Your task to perform on an android device: find snoozed emails in the gmail app Image 0: 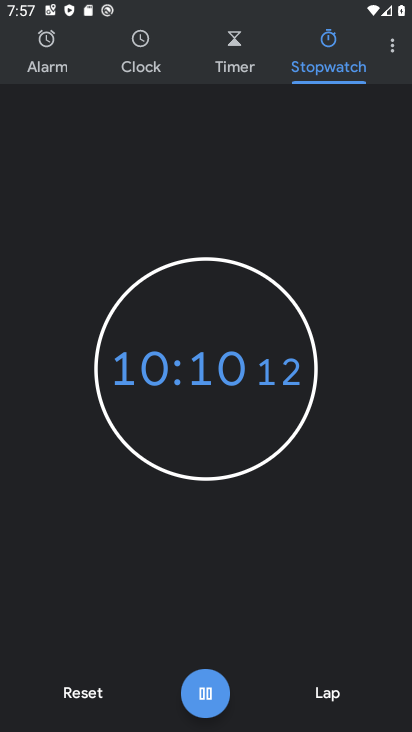
Step 0: press home button
Your task to perform on an android device: find snoozed emails in the gmail app Image 1: 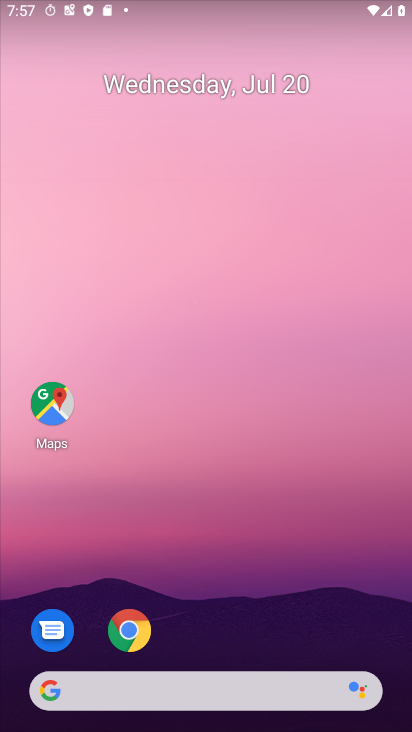
Step 1: drag from (201, 581) to (200, 206)
Your task to perform on an android device: find snoozed emails in the gmail app Image 2: 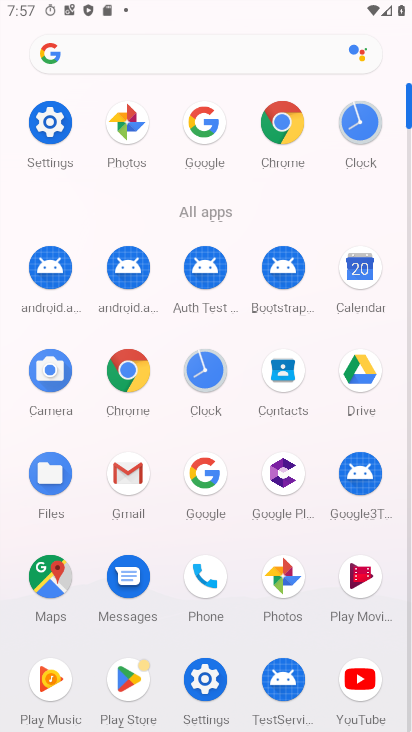
Step 2: click (135, 486)
Your task to perform on an android device: find snoozed emails in the gmail app Image 3: 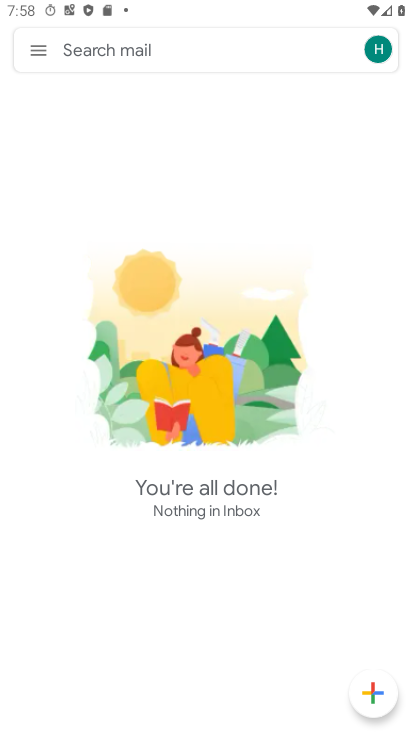
Step 3: click (33, 49)
Your task to perform on an android device: find snoozed emails in the gmail app Image 4: 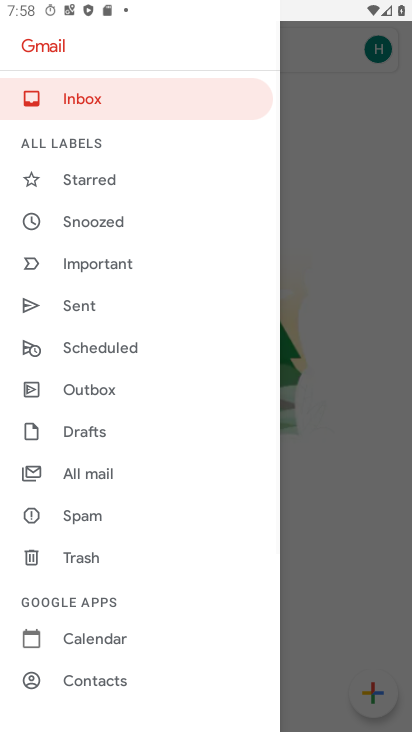
Step 4: click (99, 219)
Your task to perform on an android device: find snoozed emails in the gmail app Image 5: 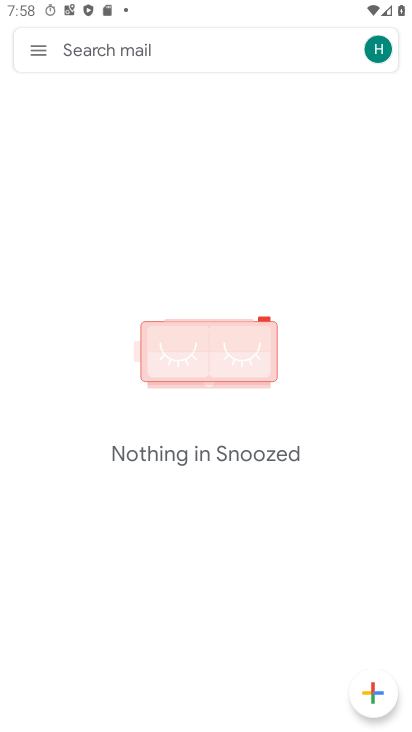
Step 5: task complete